Your task to perform on an android device: Search for Mexican restaurants on Maps Image 0: 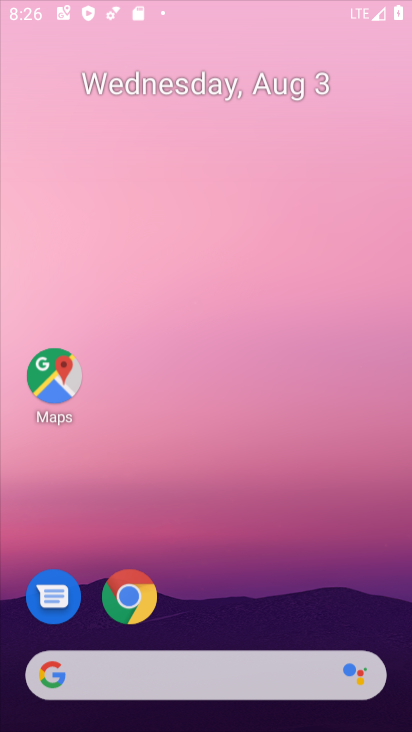
Step 0: drag from (225, 611) to (262, 7)
Your task to perform on an android device: Search for Mexican restaurants on Maps Image 1: 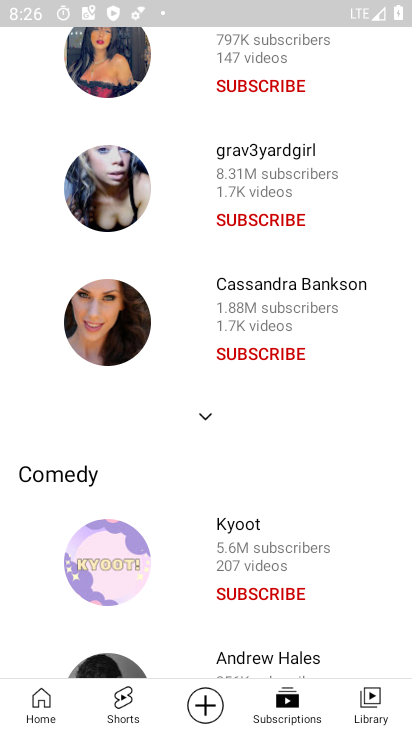
Step 1: press home button
Your task to perform on an android device: Search for Mexican restaurants on Maps Image 2: 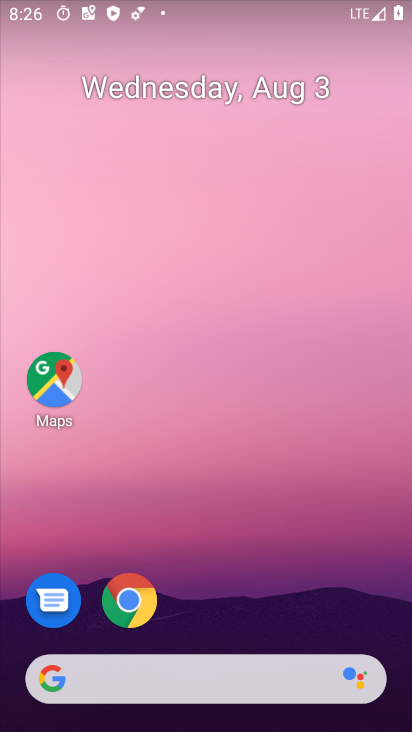
Step 2: click (65, 365)
Your task to perform on an android device: Search for Mexican restaurants on Maps Image 3: 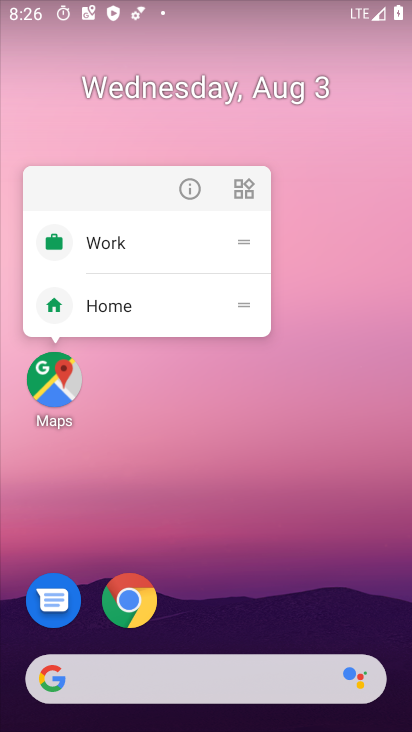
Step 3: click (59, 380)
Your task to perform on an android device: Search for Mexican restaurants on Maps Image 4: 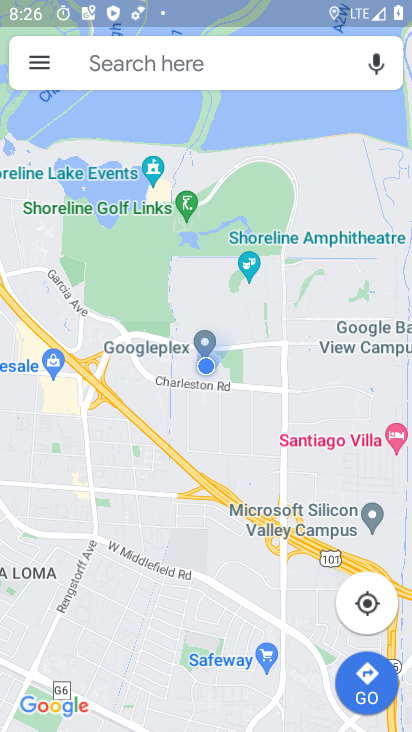
Step 4: click (163, 60)
Your task to perform on an android device: Search for Mexican restaurants on Maps Image 5: 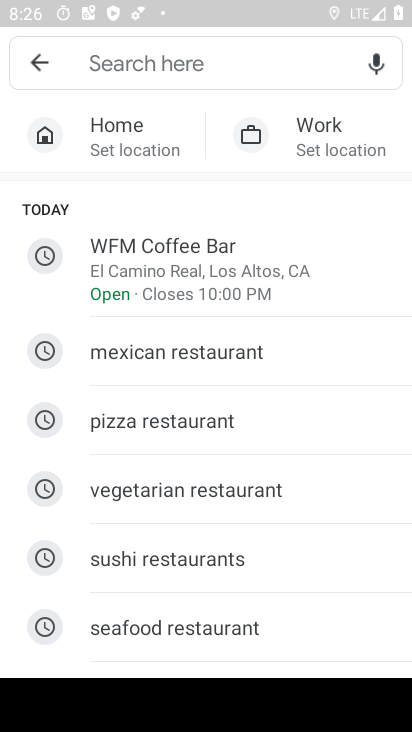
Step 5: type "mexican restaurants"
Your task to perform on an android device: Search for Mexican restaurants on Maps Image 6: 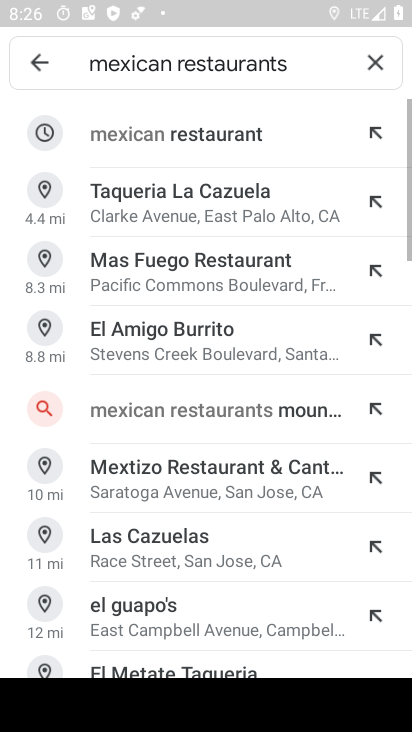
Step 6: click (197, 145)
Your task to perform on an android device: Search for Mexican restaurants on Maps Image 7: 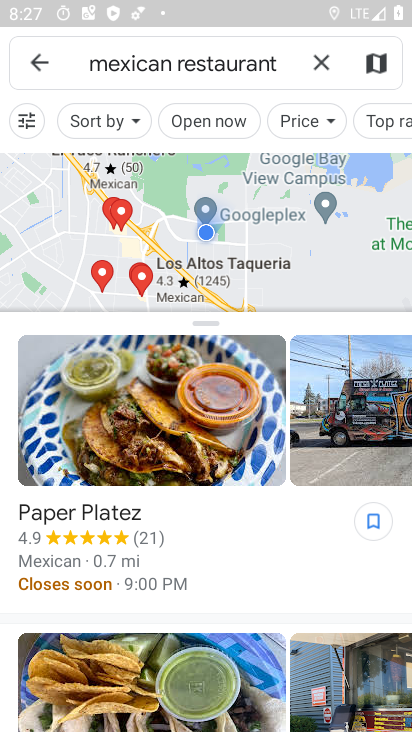
Step 7: task complete